Your task to perform on an android device: Open settings Image 0: 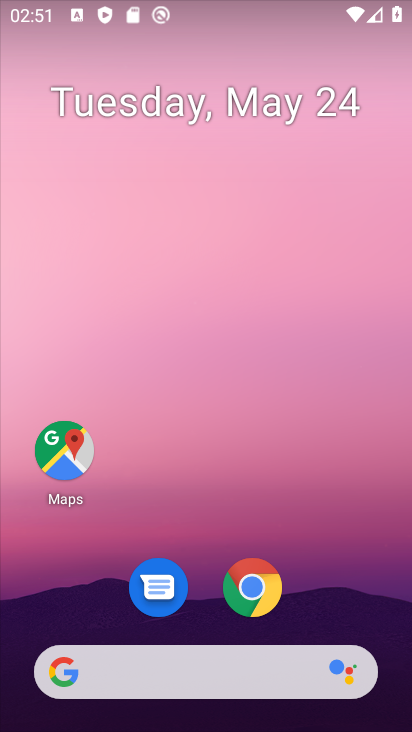
Step 0: drag from (152, 713) to (241, 164)
Your task to perform on an android device: Open settings Image 1: 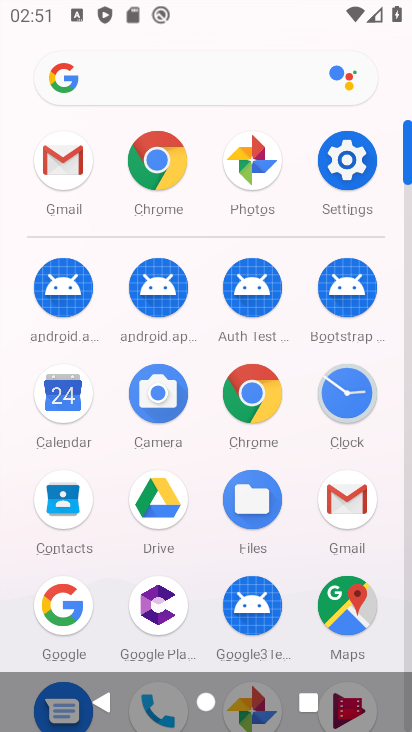
Step 1: click (350, 165)
Your task to perform on an android device: Open settings Image 2: 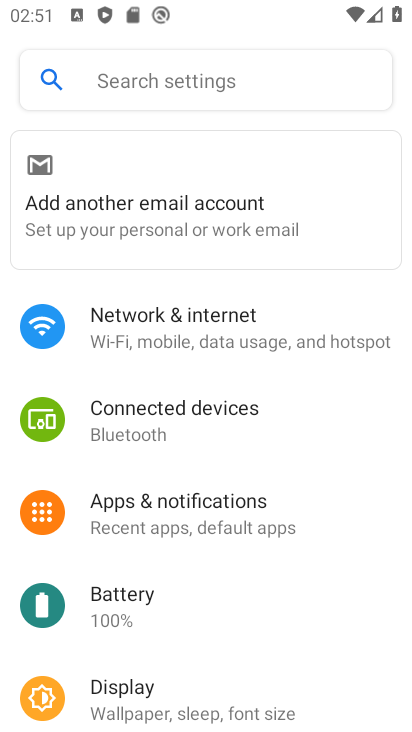
Step 2: task complete